Your task to perform on an android device: Search for a new eyeshadow Image 0: 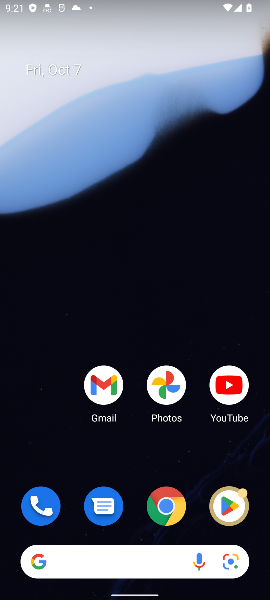
Step 0: click (166, 511)
Your task to perform on an android device: Search for a new eyeshadow Image 1: 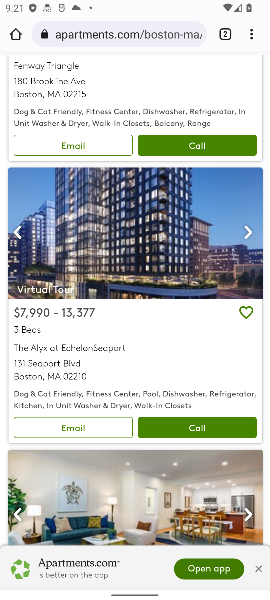
Step 1: click (181, 34)
Your task to perform on an android device: Search for a new eyeshadow Image 2: 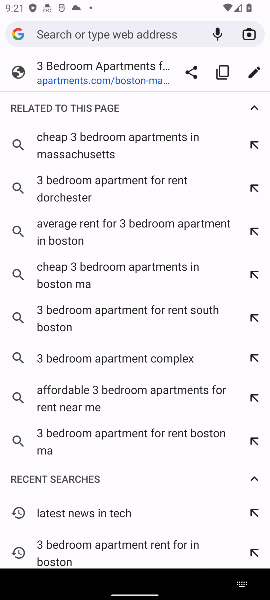
Step 2: type "new eyeshadow"
Your task to perform on an android device: Search for a new eyeshadow Image 3: 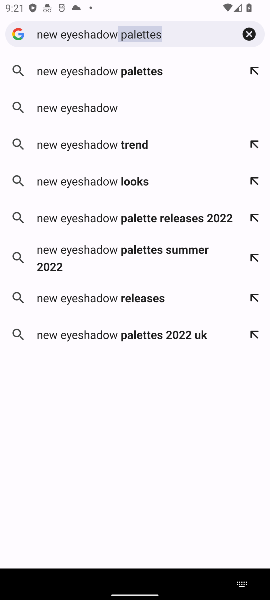
Step 3: click (79, 106)
Your task to perform on an android device: Search for a new eyeshadow Image 4: 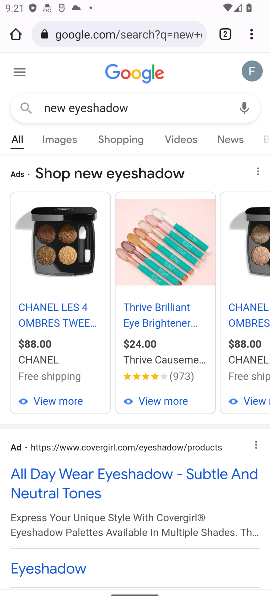
Step 4: drag from (91, 510) to (227, 180)
Your task to perform on an android device: Search for a new eyeshadow Image 5: 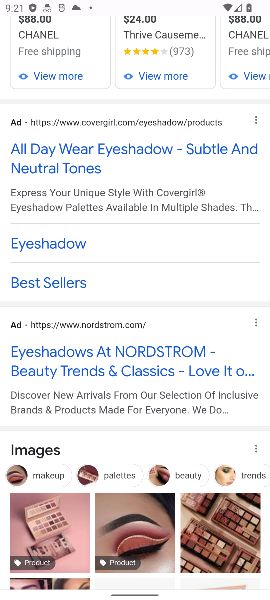
Step 5: click (147, 348)
Your task to perform on an android device: Search for a new eyeshadow Image 6: 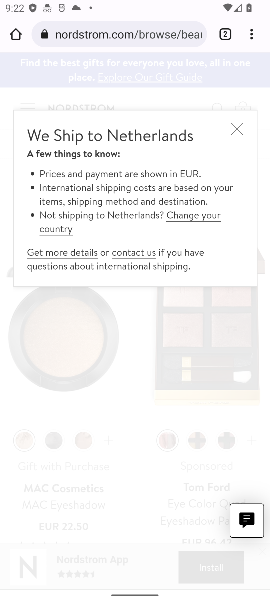
Step 6: click (240, 127)
Your task to perform on an android device: Search for a new eyeshadow Image 7: 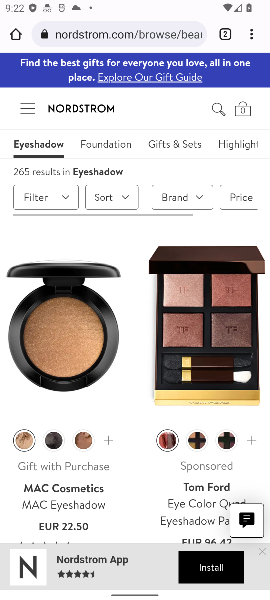
Step 7: task complete